Your task to perform on an android device: toggle notifications settings in the gmail app Image 0: 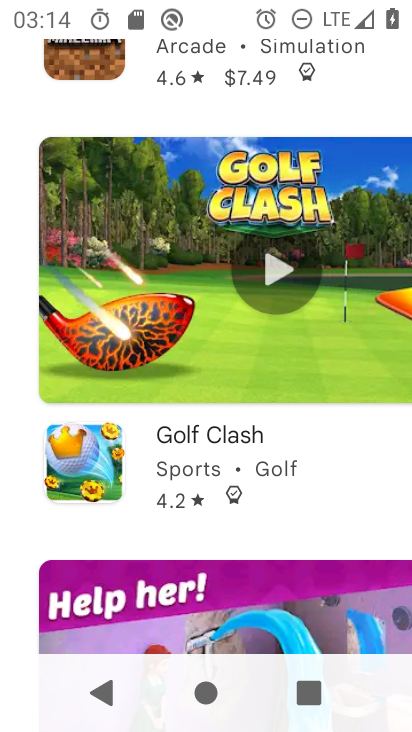
Step 0: press home button
Your task to perform on an android device: toggle notifications settings in the gmail app Image 1: 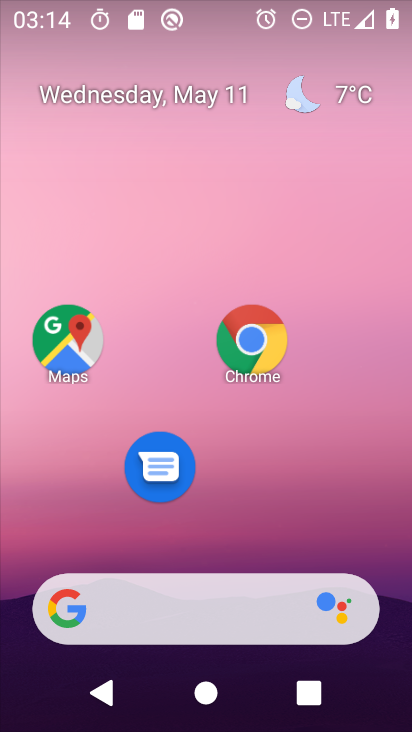
Step 1: drag from (189, 598) to (300, 236)
Your task to perform on an android device: toggle notifications settings in the gmail app Image 2: 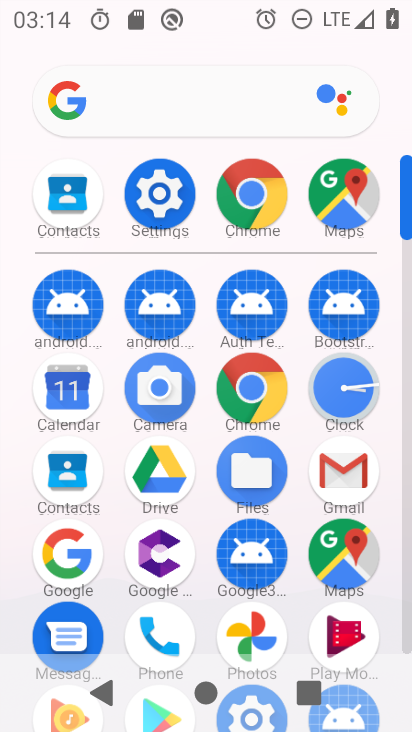
Step 2: click (335, 473)
Your task to perform on an android device: toggle notifications settings in the gmail app Image 3: 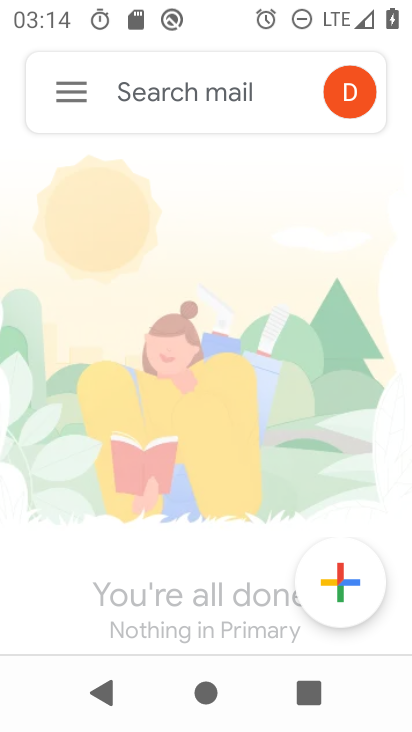
Step 3: click (67, 103)
Your task to perform on an android device: toggle notifications settings in the gmail app Image 4: 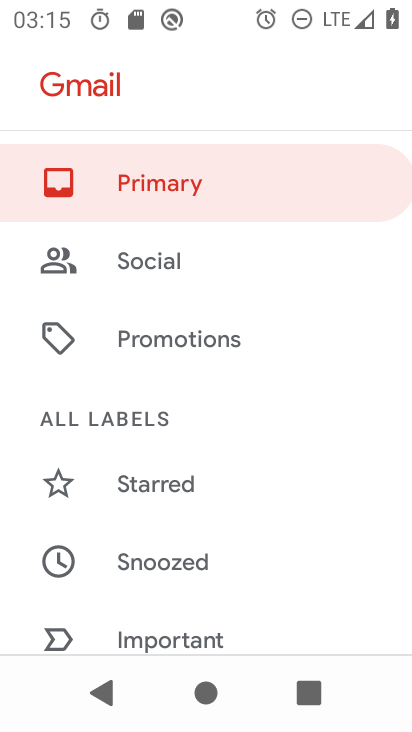
Step 4: drag from (240, 547) to (359, 142)
Your task to perform on an android device: toggle notifications settings in the gmail app Image 5: 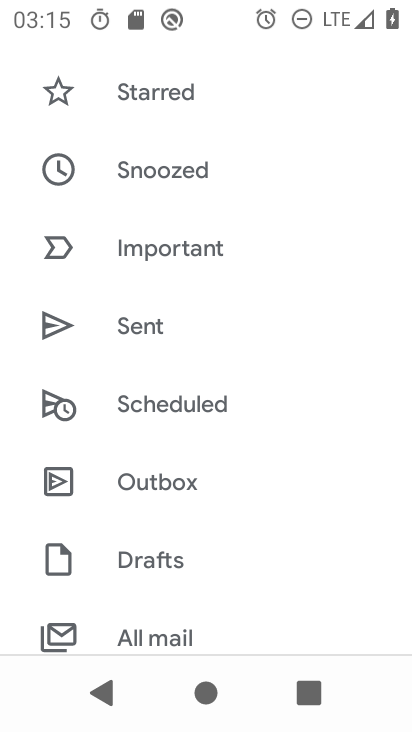
Step 5: drag from (278, 571) to (401, 91)
Your task to perform on an android device: toggle notifications settings in the gmail app Image 6: 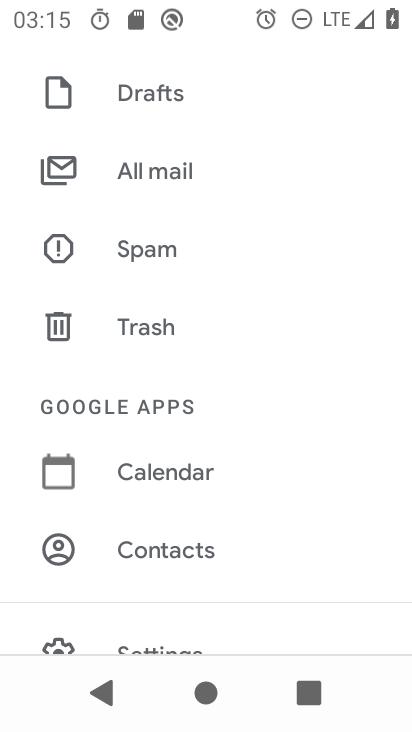
Step 6: drag from (284, 563) to (391, 90)
Your task to perform on an android device: toggle notifications settings in the gmail app Image 7: 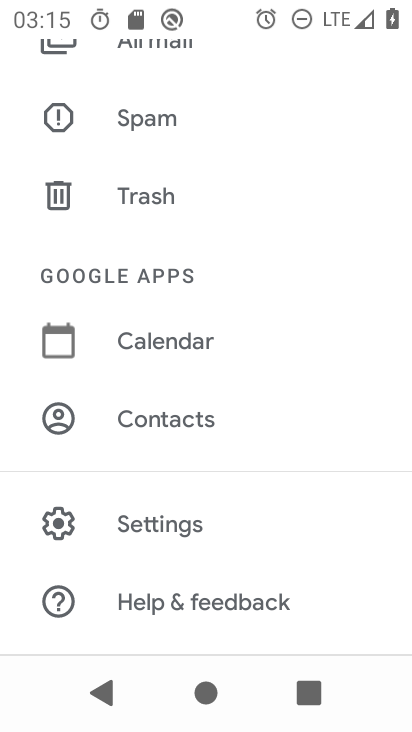
Step 7: click (183, 521)
Your task to perform on an android device: toggle notifications settings in the gmail app Image 8: 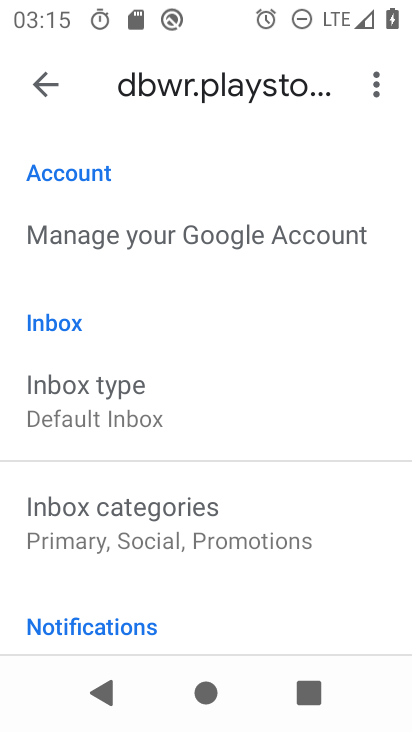
Step 8: drag from (210, 487) to (282, 135)
Your task to perform on an android device: toggle notifications settings in the gmail app Image 9: 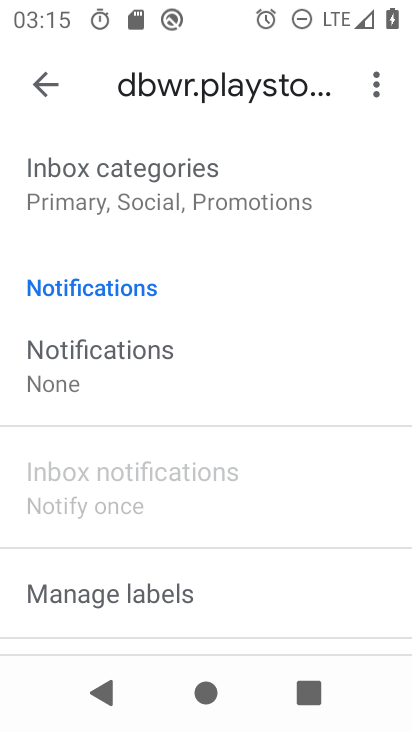
Step 9: click (116, 378)
Your task to perform on an android device: toggle notifications settings in the gmail app Image 10: 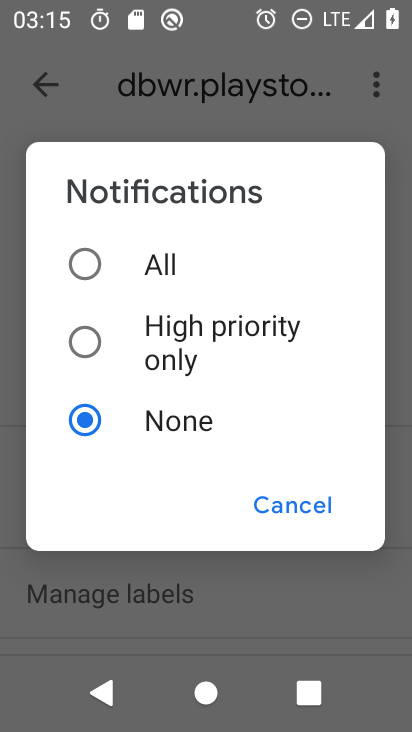
Step 10: click (92, 266)
Your task to perform on an android device: toggle notifications settings in the gmail app Image 11: 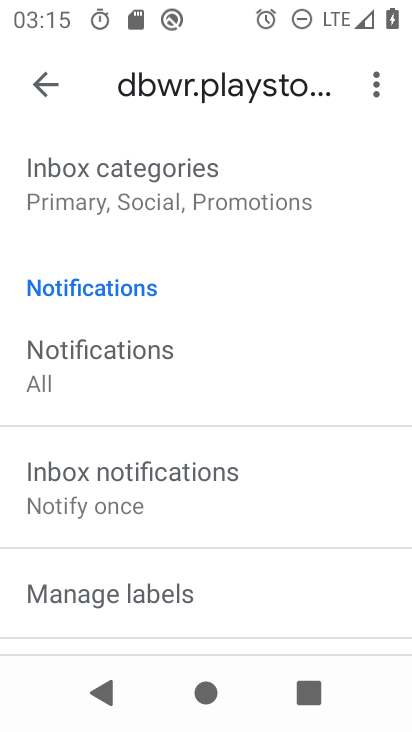
Step 11: task complete